Your task to perform on an android device: all mails in gmail Image 0: 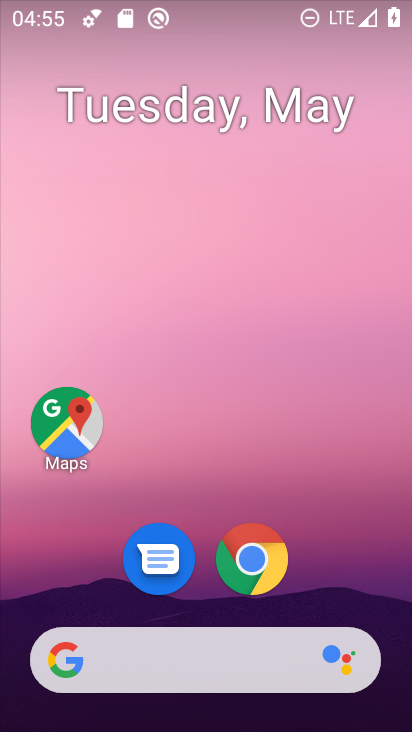
Step 0: drag from (227, 710) to (229, 164)
Your task to perform on an android device: all mails in gmail Image 1: 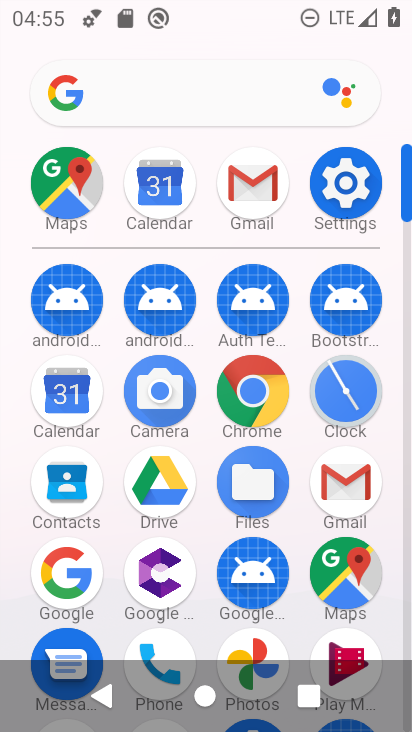
Step 1: click (342, 498)
Your task to perform on an android device: all mails in gmail Image 2: 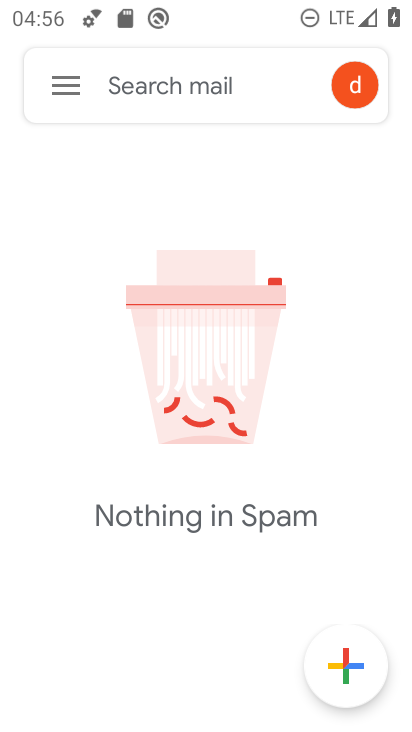
Step 2: click (62, 88)
Your task to perform on an android device: all mails in gmail Image 3: 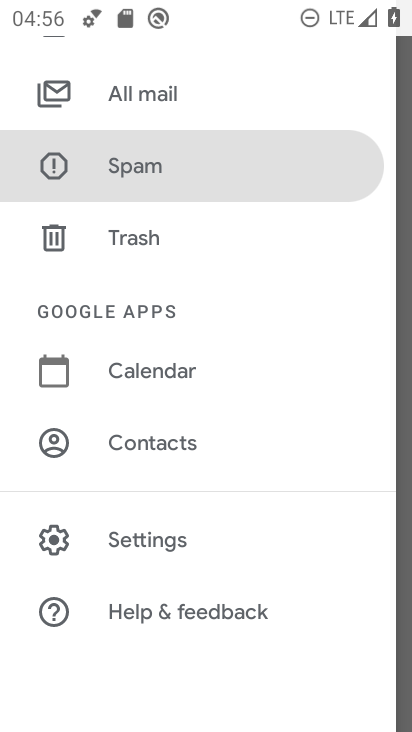
Step 3: click (133, 94)
Your task to perform on an android device: all mails in gmail Image 4: 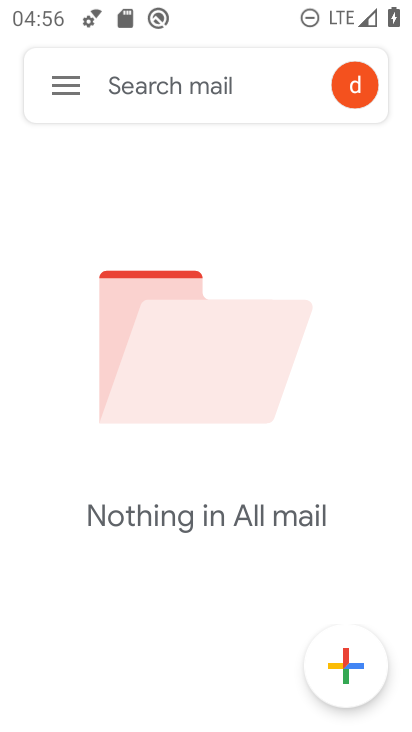
Step 4: task complete